Your task to perform on an android device: turn on airplane mode Image 0: 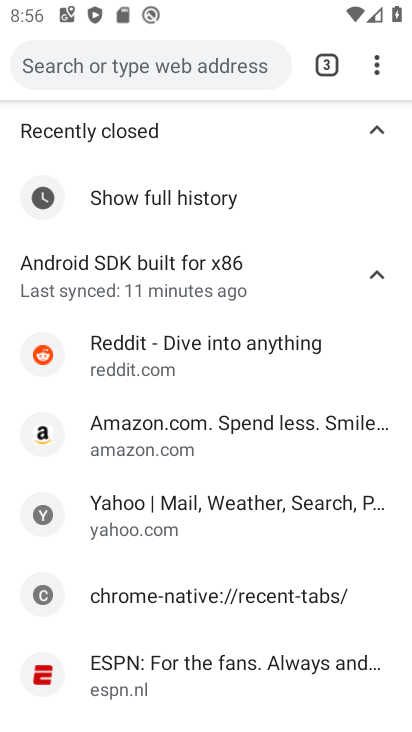
Step 0: drag from (329, 8) to (277, 513)
Your task to perform on an android device: turn on airplane mode Image 1: 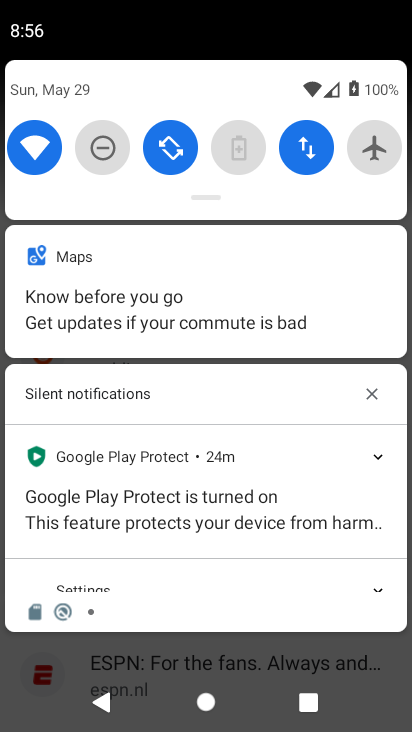
Step 1: click (365, 148)
Your task to perform on an android device: turn on airplane mode Image 2: 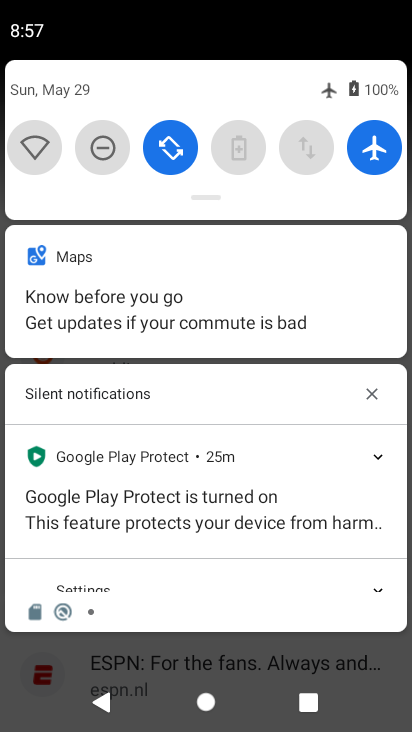
Step 2: task complete